Your task to perform on an android device: Go to Yahoo.com Image 0: 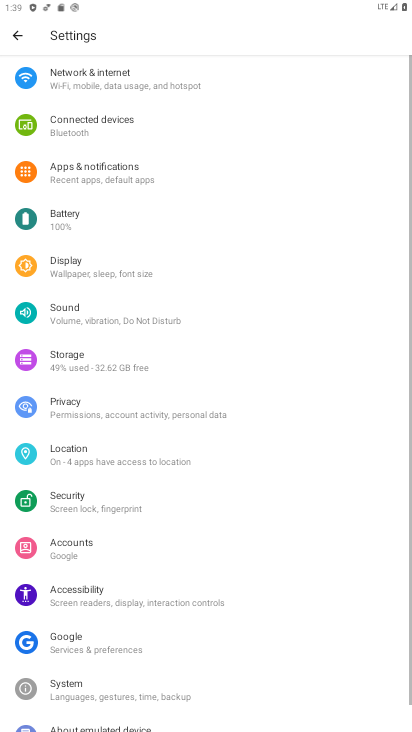
Step 0: press home button
Your task to perform on an android device: Go to Yahoo.com Image 1: 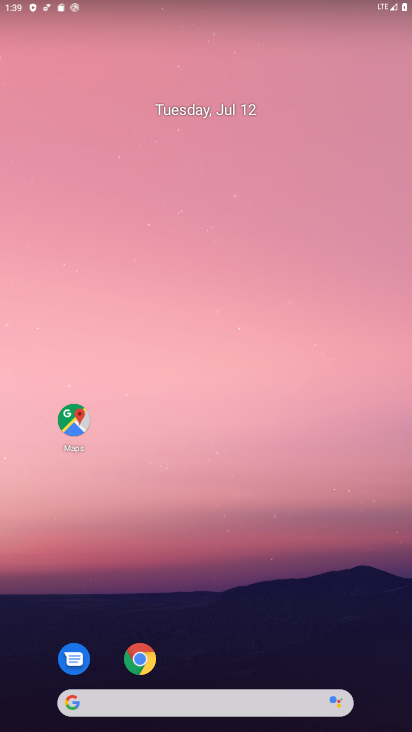
Step 1: drag from (216, 658) to (199, 97)
Your task to perform on an android device: Go to Yahoo.com Image 2: 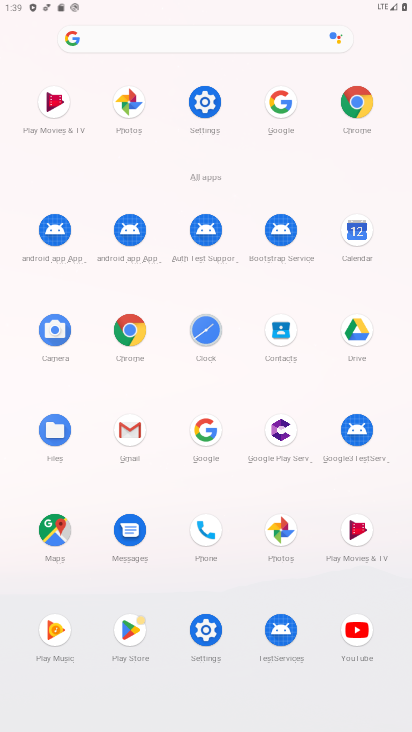
Step 2: click (130, 328)
Your task to perform on an android device: Go to Yahoo.com Image 3: 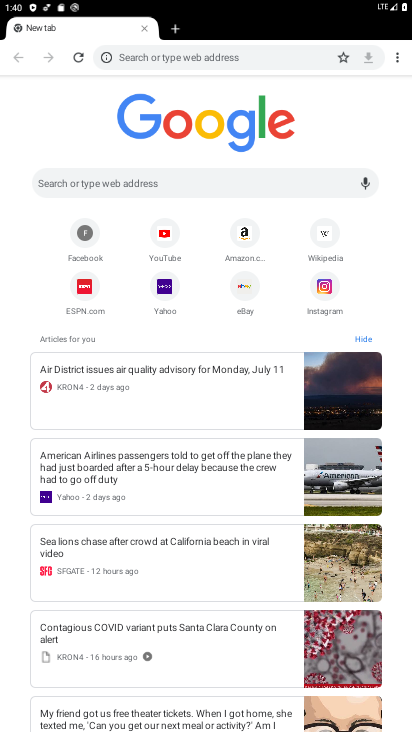
Step 3: click (163, 288)
Your task to perform on an android device: Go to Yahoo.com Image 4: 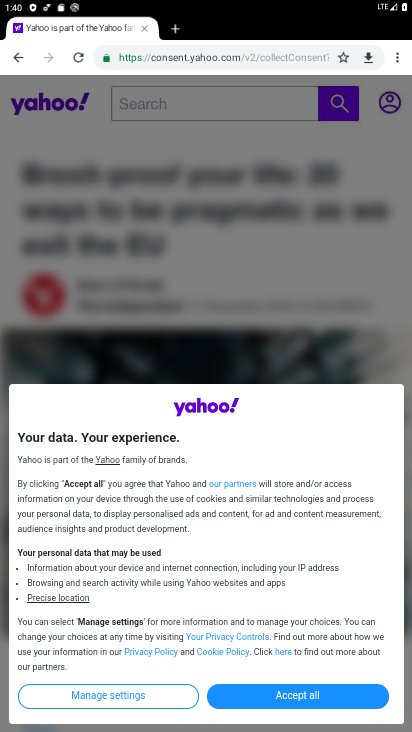
Step 4: task complete